Your task to perform on an android device: change alarm snooze length Image 0: 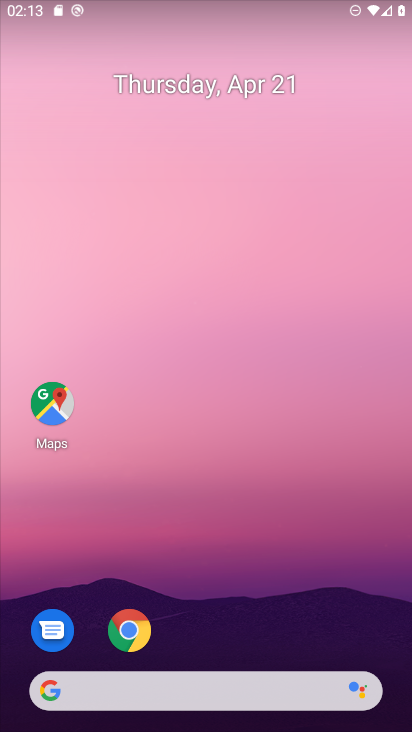
Step 0: drag from (280, 621) to (286, 96)
Your task to perform on an android device: change alarm snooze length Image 1: 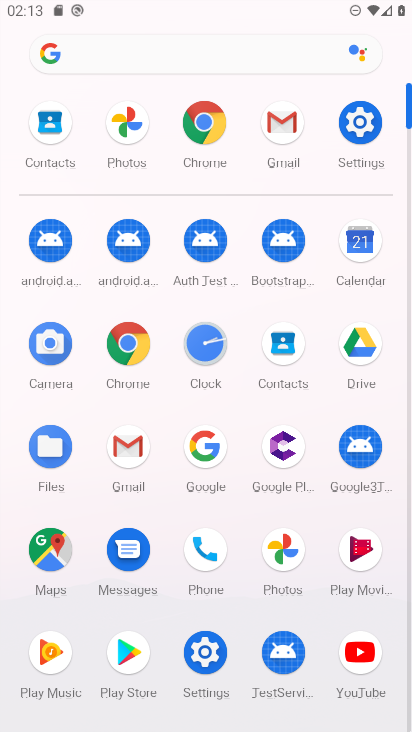
Step 1: click (207, 349)
Your task to perform on an android device: change alarm snooze length Image 2: 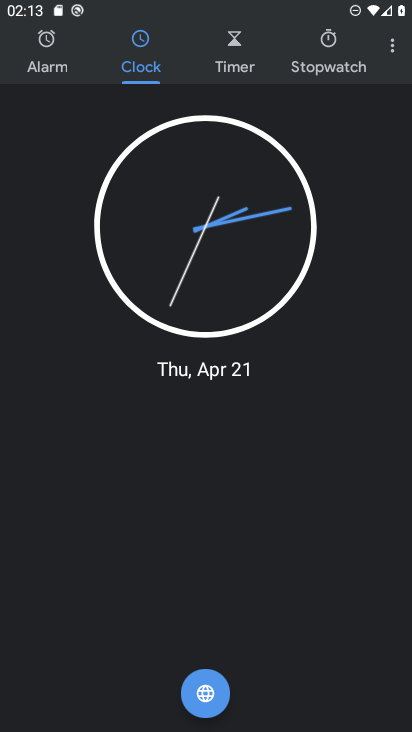
Step 2: click (385, 48)
Your task to perform on an android device: change alarm snooze length Image 3: 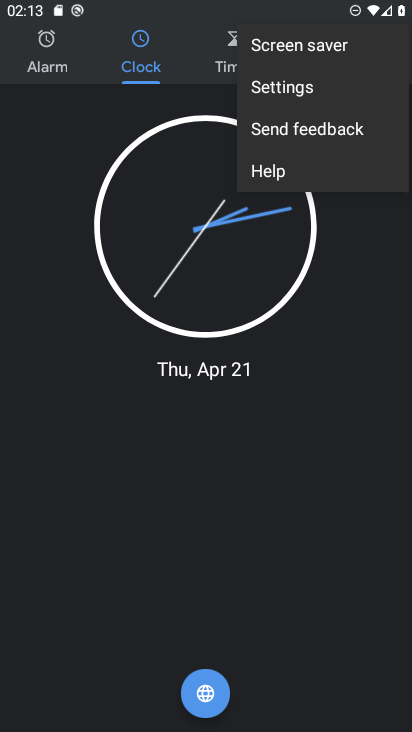
Step 3: click (309, 78)
Your task to perform on an android device: change alarm snooze length Image 4: 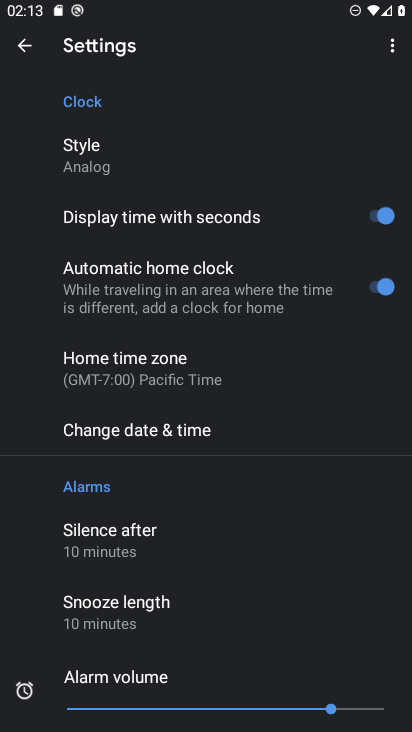
Step 4: drag from (230, 611) to (285, 179)
Your task to perform on an android device: change alarm snooze length Image 5: 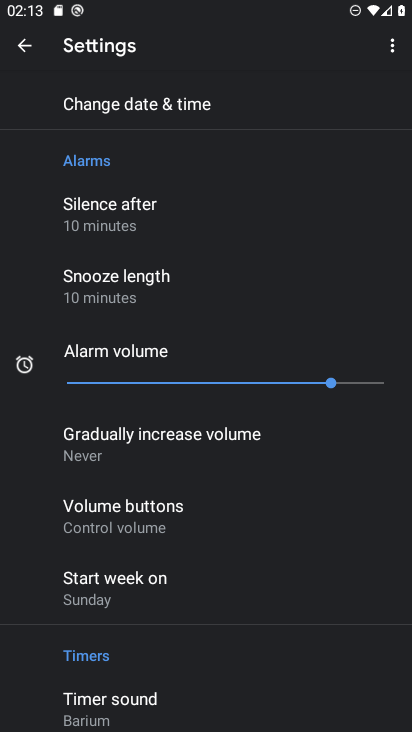
Step 5: click (261, 114)
Your task to perform on an android device: change alarm snooze length Image 6: 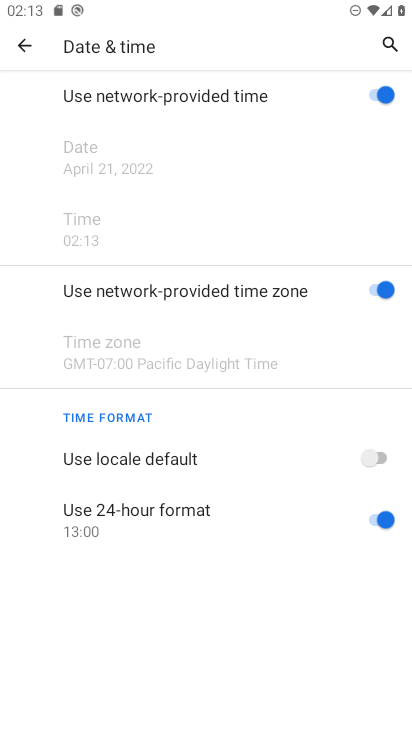
Step 6: task complete